Your task to perform on an android device: toggle sleep mode Image 0: 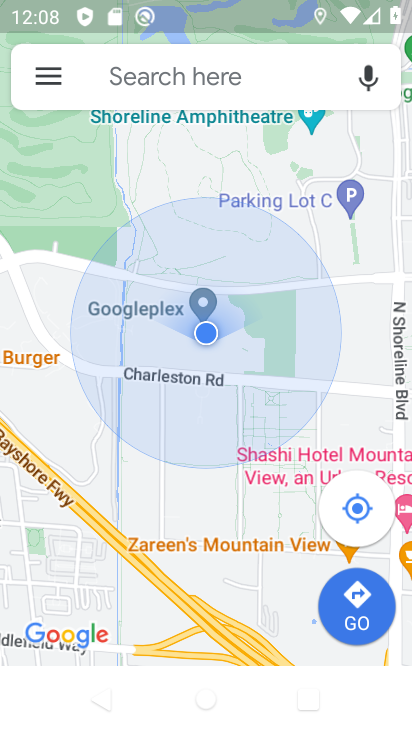
Step 0: task impossible